Your task to perform on an android device: turn off notifications in google photos Image 0: 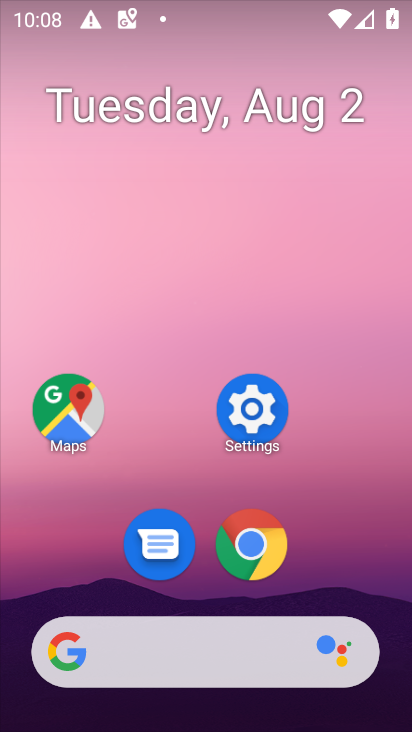
Step 0: drag from (255, 604) to (301, 75)
Your task to perform on an android device: turn off notifications in google photos Image 1: 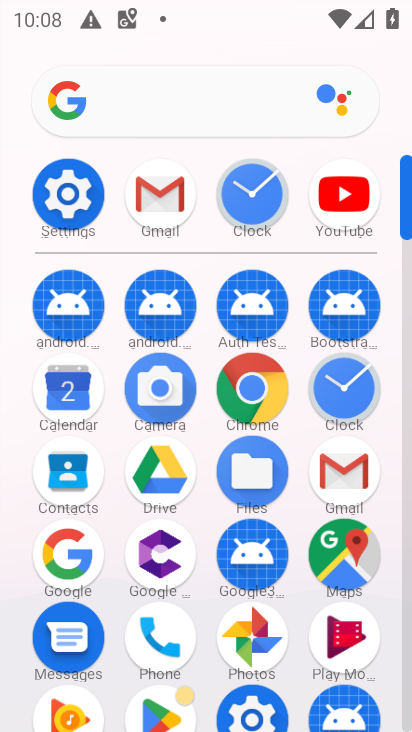
Step 1: click (241, 645)
Your task to perform on an android device: turn off notifications in google photos Image 2: 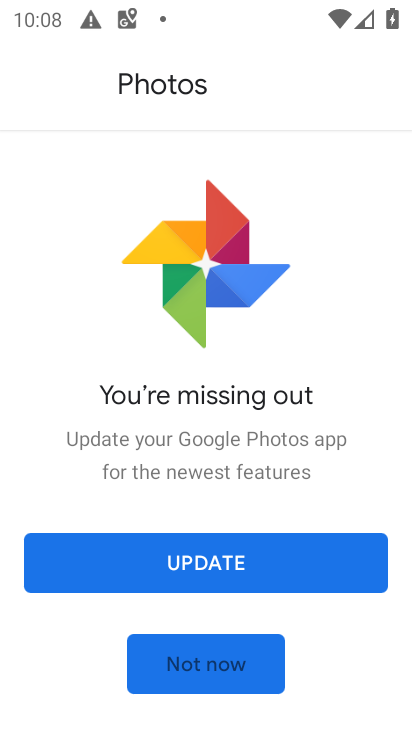
Step 2: click (214, 565)
Your task to perform on an android device: turn off notifications in google photos Image 3: 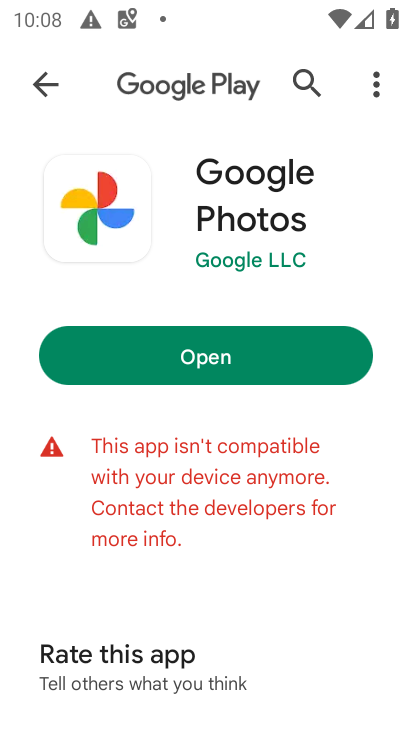
Step 3: click (217, 358)
Your task to perform on an android device: turn off notifications in google photos Image 4: 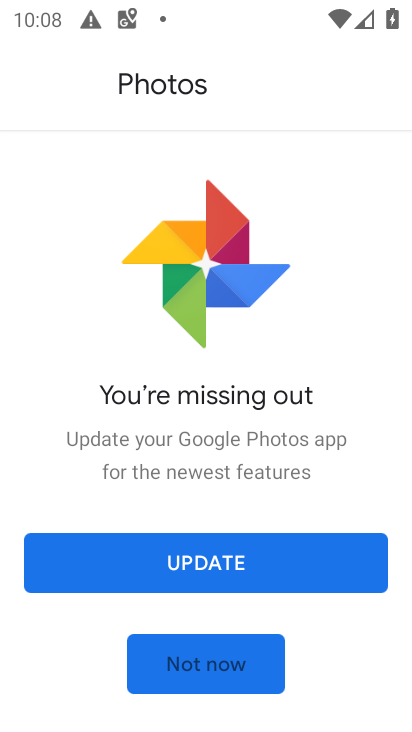
Step 4: click (277, 457)
Your task to perform on an android device: turn off notifications in google photos Image 5: 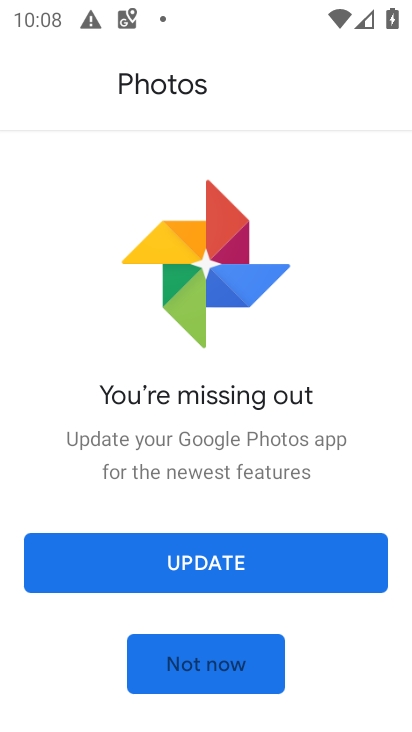
Step 5: click (245, 567)
Your task to perform on an android device: turn off notifications in google photos Image 6: 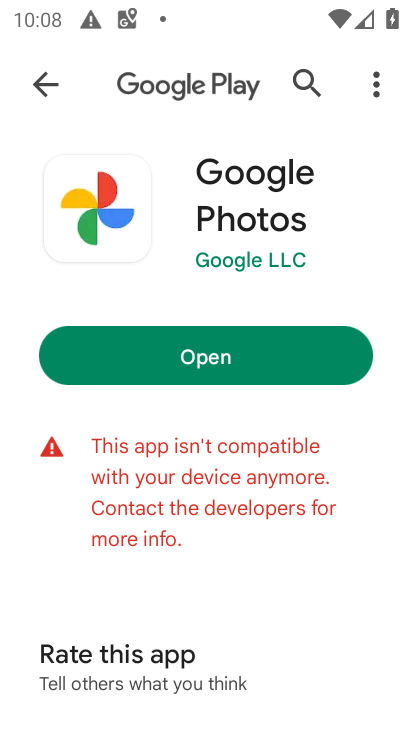
Step 6: task complete